Your task to perform on an android device: Go to Amazon Image 0: 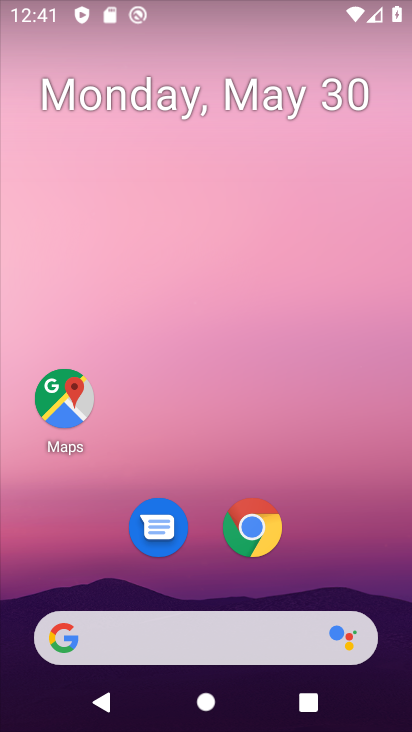
Step 0: drag from (193, 584) to (221, 334)
Your task to perform on an android device: Go to Amazon Image 1: 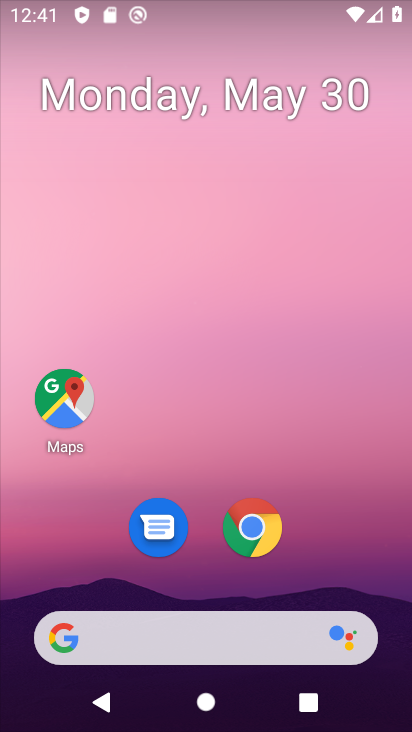
Step 1: drag from (196, 554) to (226, 181)
Your task to perform on an android device: Go to Amazon Image 2: 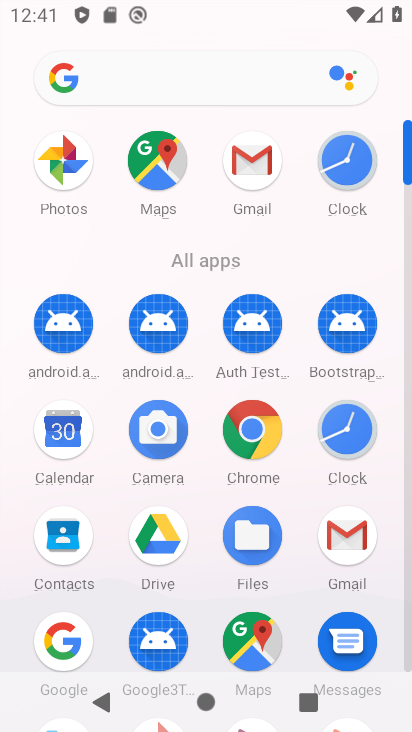
Step 2: click (235, 431)
Your task to perform on an android device: Go to Amazon Image 3: 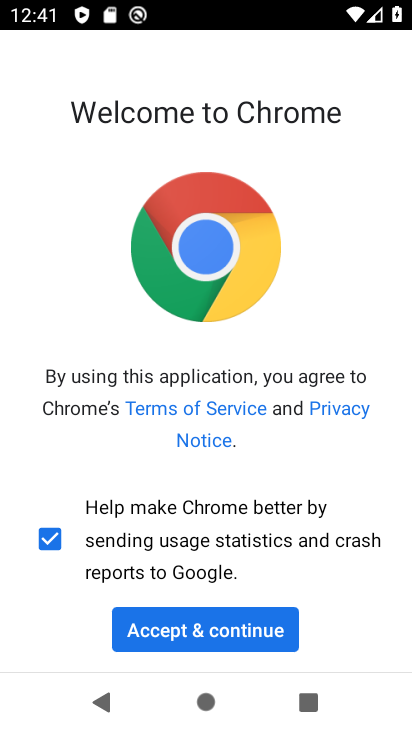
Step 3: click (196, 629)
Your task to perform on an android device: Go to Amazon Image 4: 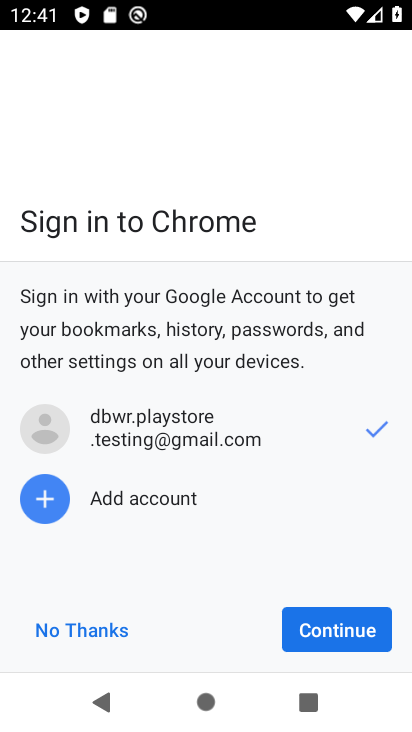
Step 4: click (302, 626)
Your task to perform on an android device: Go to Amazon Image 5: 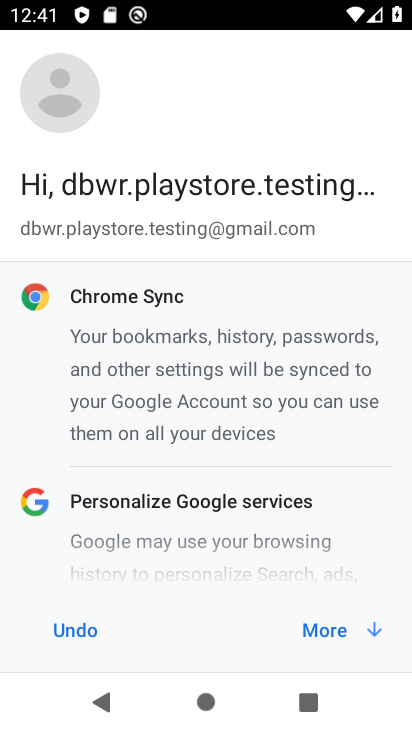
Step 5: click (329, 630)
Your task to perform on an android device: Go to Amazon Image 6: 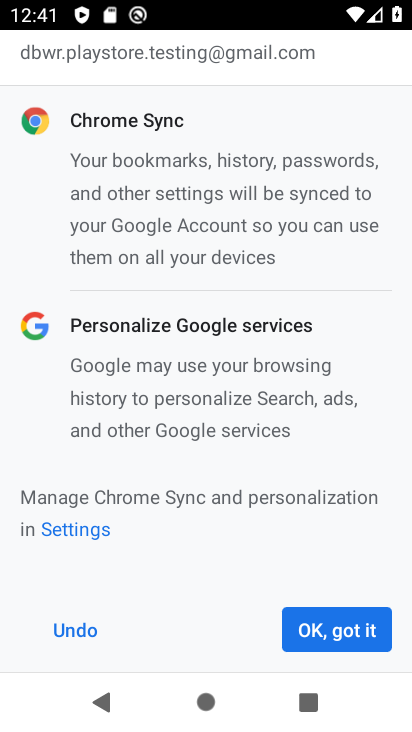
Step 6: click (344, 645)
Your task to perform on an android device: Go to Amazon Image 7: 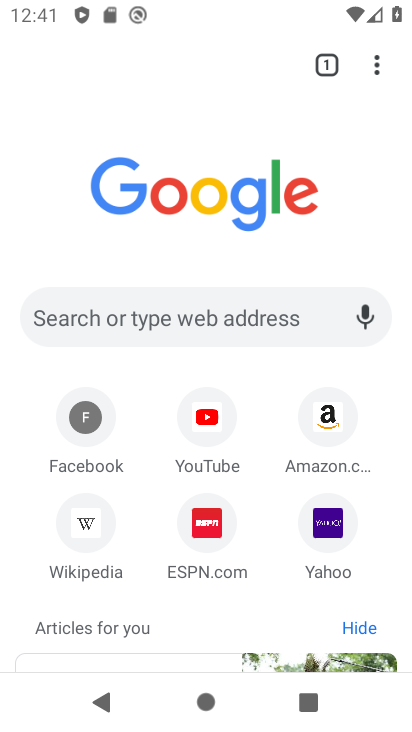
Step 7: click (319, 425)
Your task to perform on an android device: Go to Amazon Image 8: 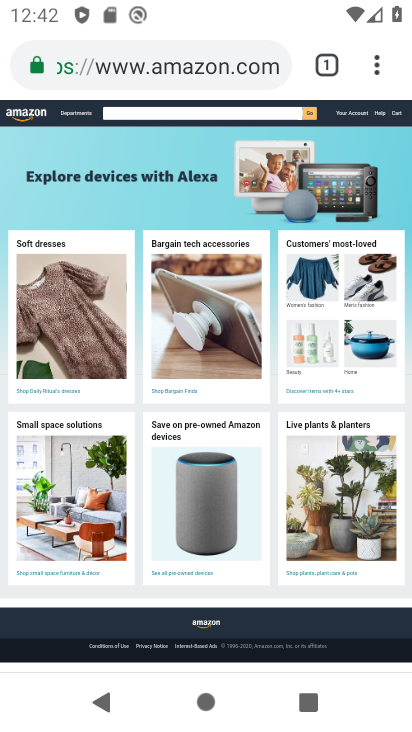
Step 8: task complete